Your task to perform on an android device: check storage Image 0: 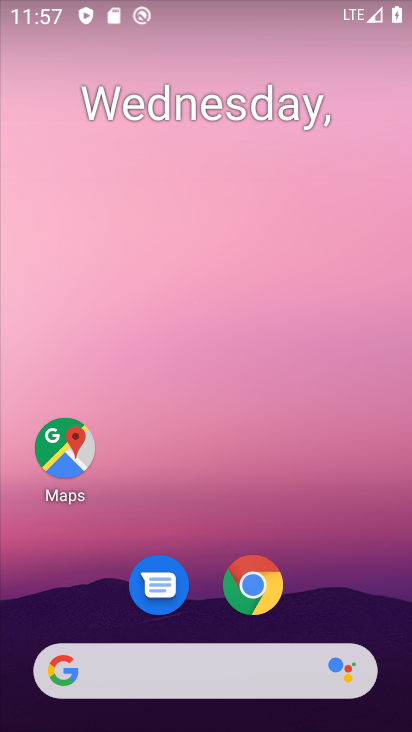
Step 0: drag from (226, 494) to (229, 42)
Your task to perform on an android device: check storage Image 1: 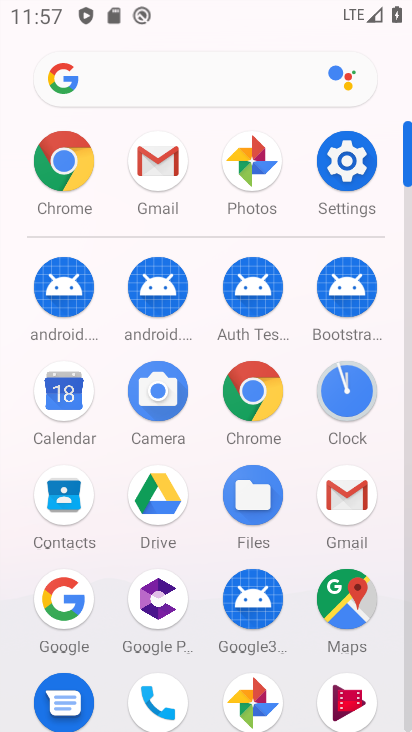
Step 1: click (338, 162)
Your task to perform on an android device: check storage Image 2: 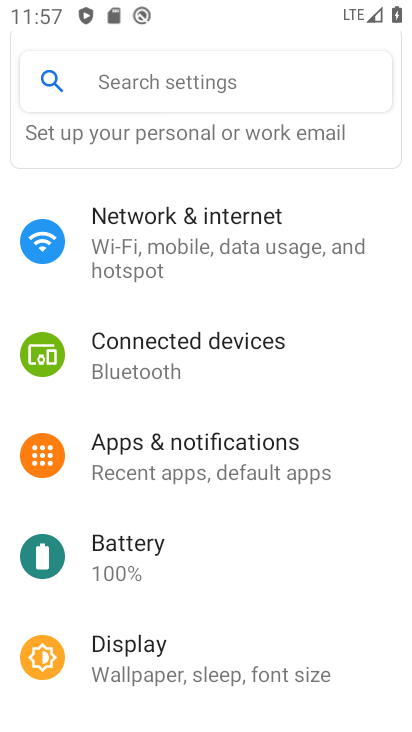
Step 2: drag from (231, 538) to (238, 189)
Your task to perform on an android device: check storage Image 3: 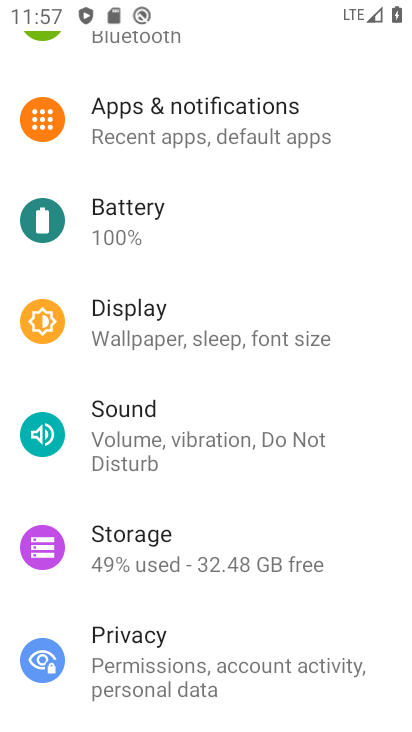
Step 3: click (248, 543)
Your task to perform on an android device: check storage Image 4: 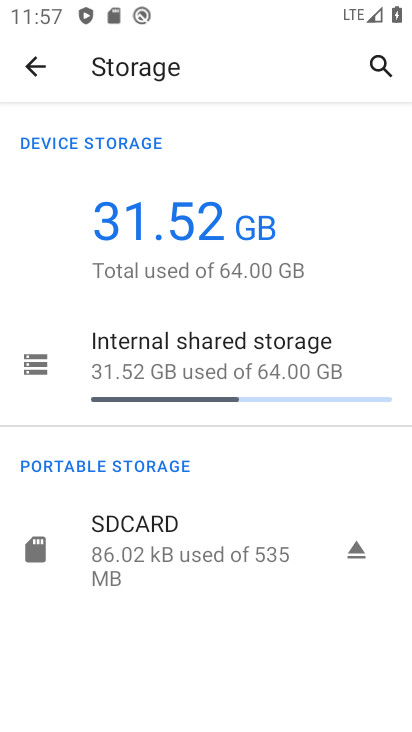
Step 4: task complete